Your task to perform on an android device: Look up the best rated gaming chair on Target. Image 0: 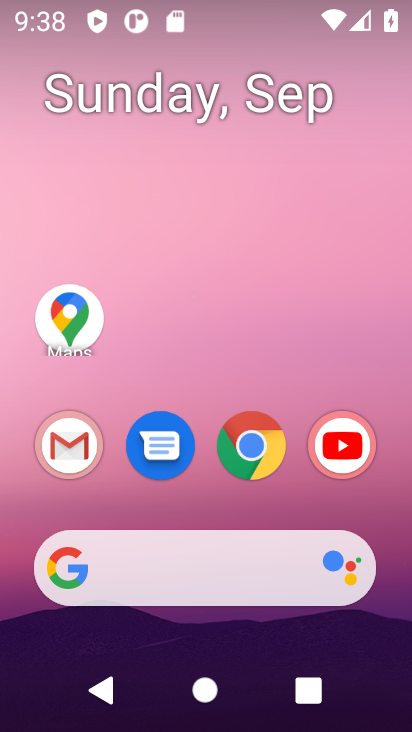
Step 0: drag from (265, 426) to (49, 10)
Your task to perform on an android device: Look up the best rated gaming chair on Target. Image 1: 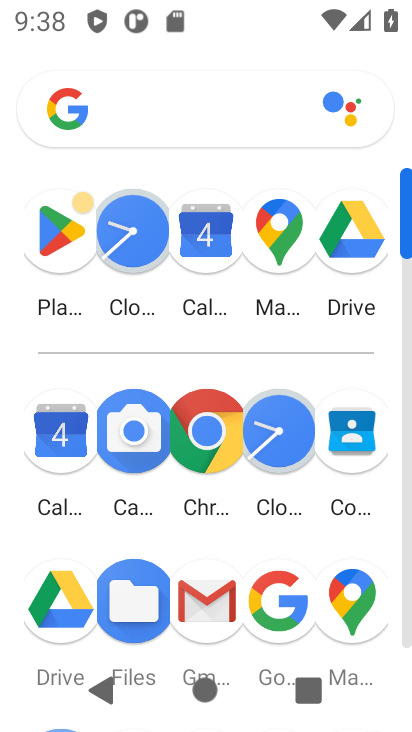
Step 1: click (212, 448)
Your task to perform on an android device: Look up the best rated gaming chair on Target. Image 2: 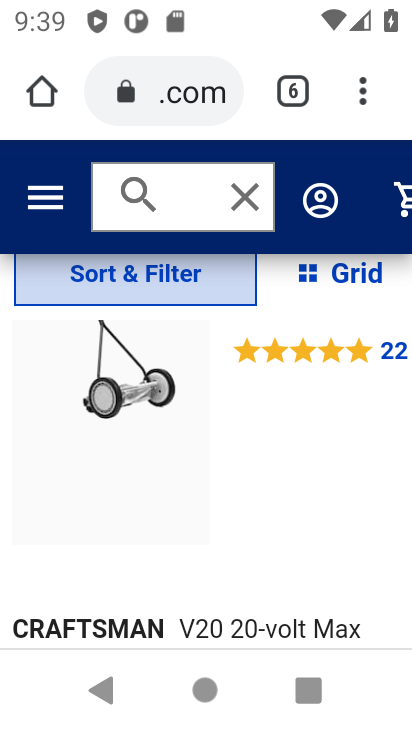
Step 2: click (170, 95)
Your task to perform on an android device: Look up the best rated gaming chair on Target. Image 3: 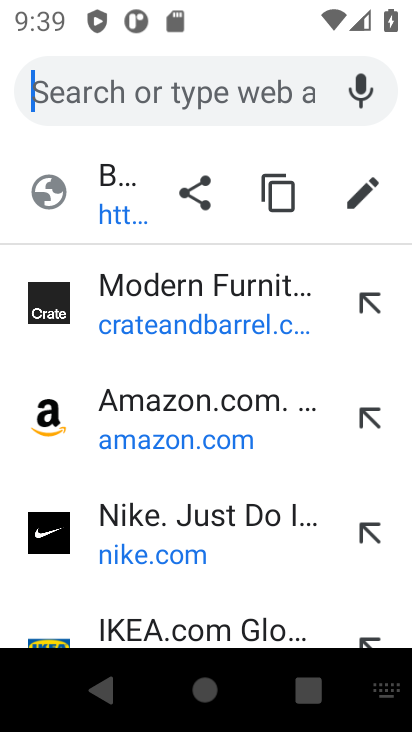
Step 3: type "Target."
Your task to perform on an android device: Look up the best rated gaming chair on Target. Image 4: 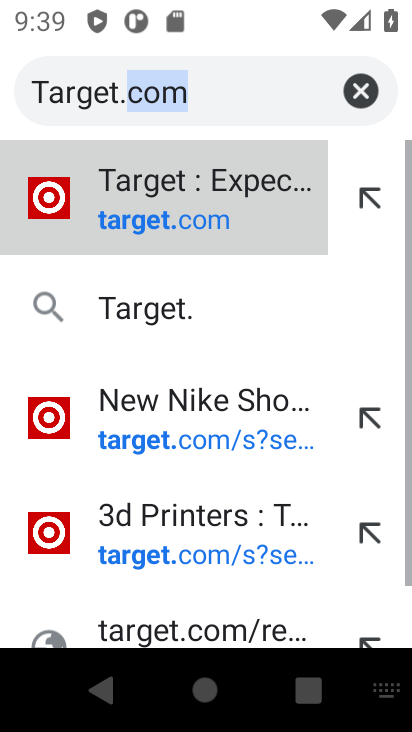
Step 4: press enter
Your task to perform on an android device: Look up the best rated gaming chair on Target. Image 5: 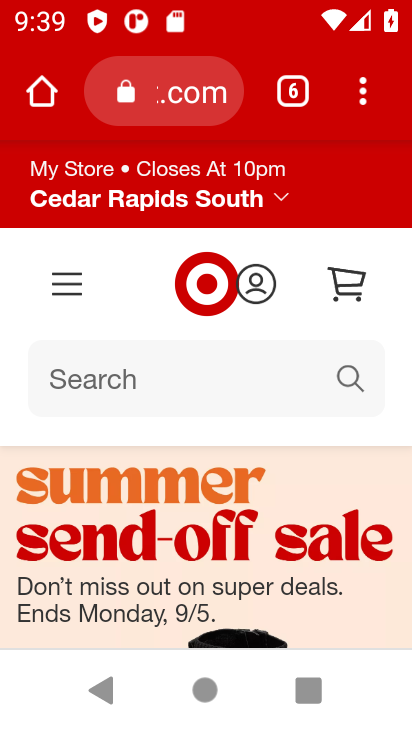
Step 5: click (250, 384)
Your task to perform on an android device: Look up the best rated gaming chair on Target. Image 6: 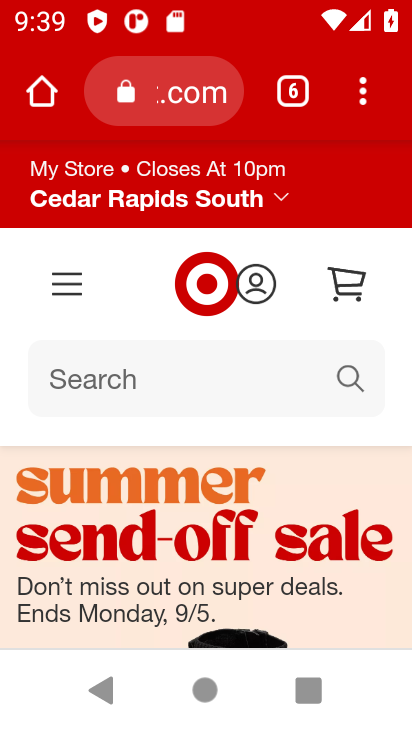
Step 6: click (144, 382)
Your task to perform on an android device: Look up the best rated gaming chair on Target. Image 7: 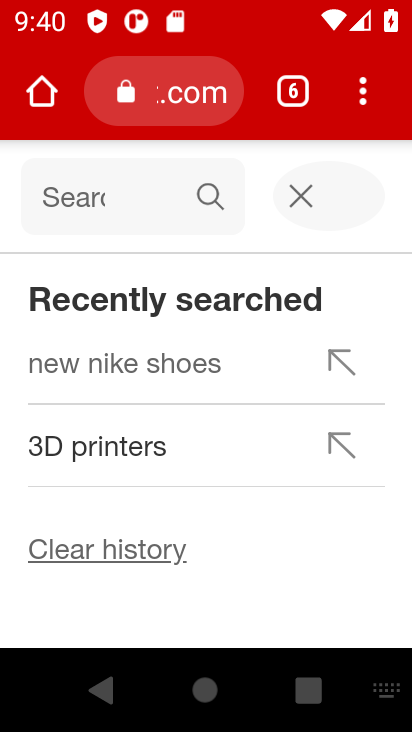
Step 7: type "best rated gaming chair"
Your task to perform on an android device: Look up the best rated gaming chair on Target. Image 8: 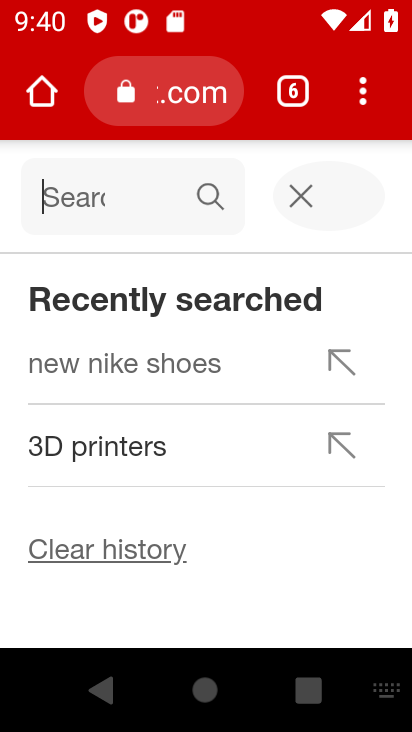
Step 8: press enter
Your task to perform on an android device: Look up the best rated gaming chair on Target. Image 9: 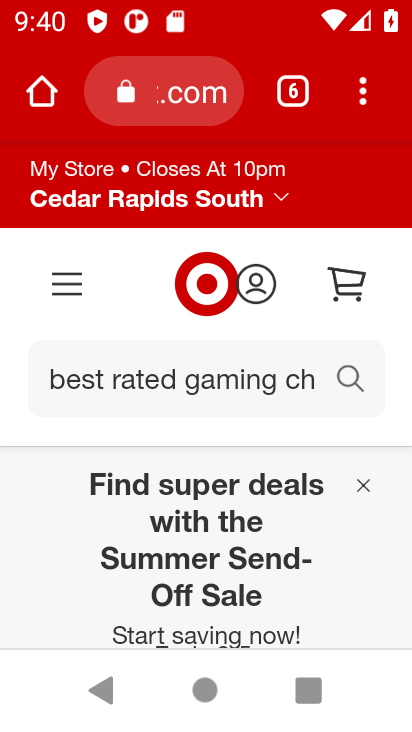
Step 9: task complete